Your task to perform on an android device: toggle show notifications on the lock screen Image 0: 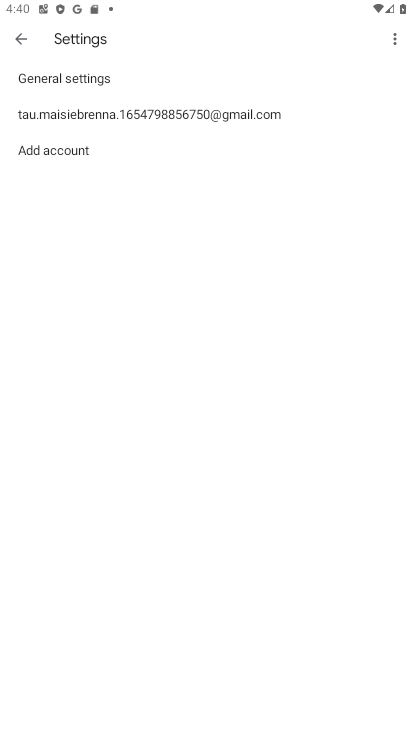
Step 0: press home button
Your task to perform on an android device: toggle show notifications on the lock screen Image 1: 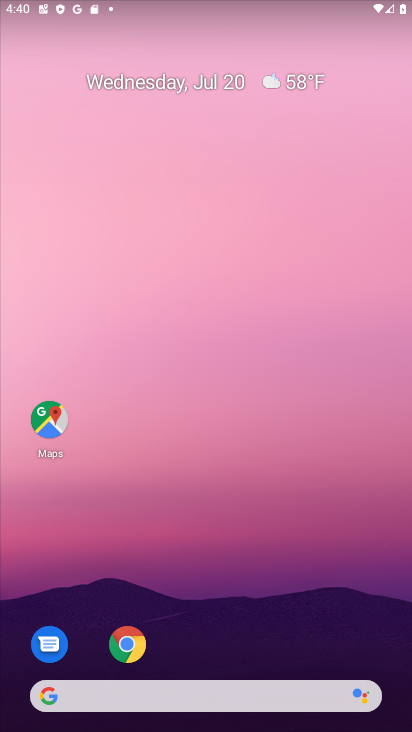
Step 1: drag from (209, 663) to (198, 319)
Your task to perform on an android device: toggle show notifications on the lock screen Image 2: 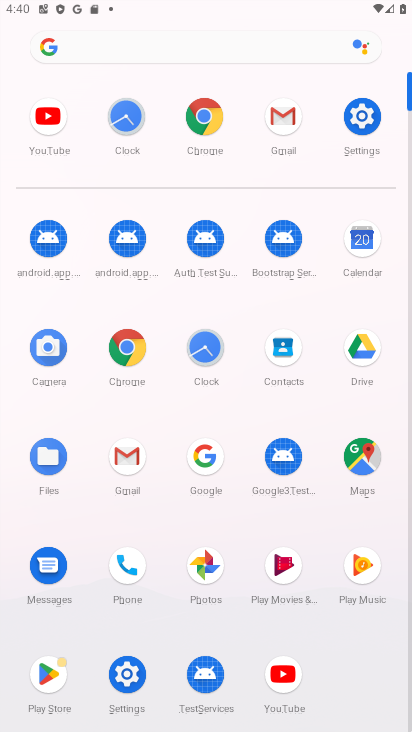
Step 2: click (361, 122)
Your task to perform on an android device: toggle show notifications on the lock screen Image 3: 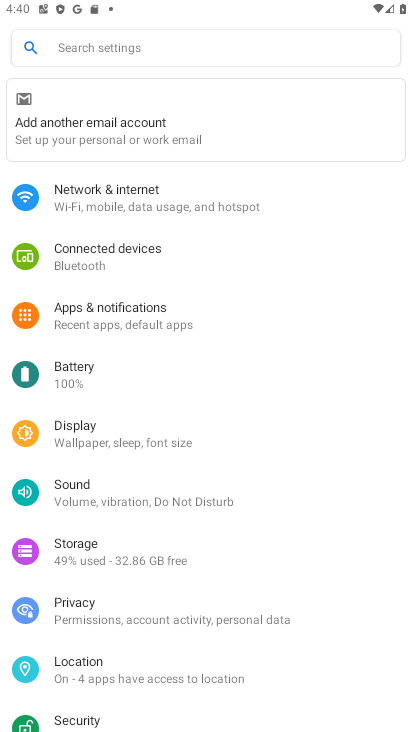
Step 3: click (118, 322)
Your task to perform on an android device: toggle show notifications on the lock screen Image 4: 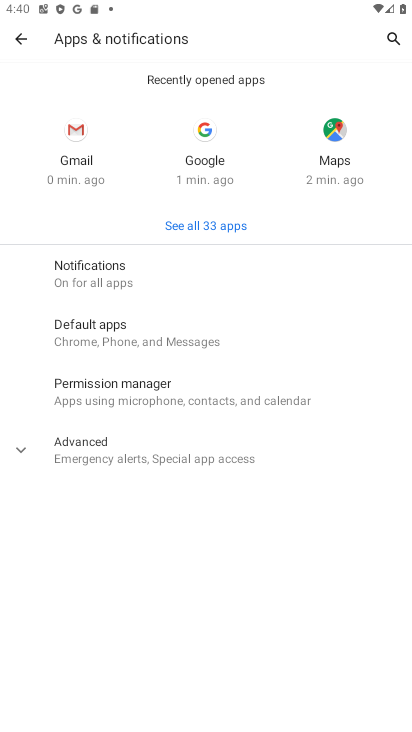
Step 4: click (107, 282)
Your task to perform on an android device: toggle show notifications on the lock screen Image 5: 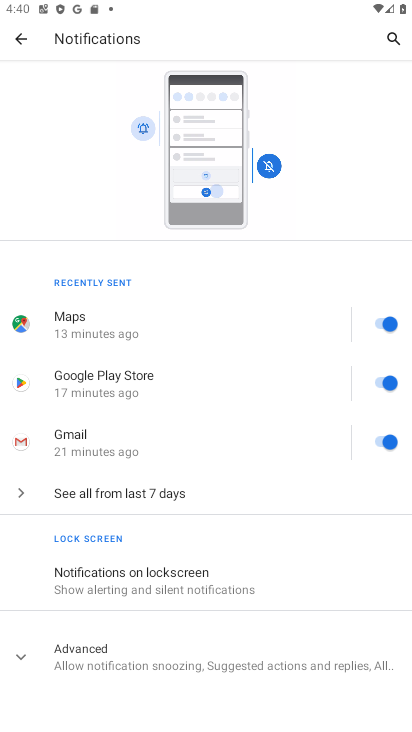
Step 5: click (118, 577)
Your task to perform on an android device: toggle show notifications on the lock screen Image 6: 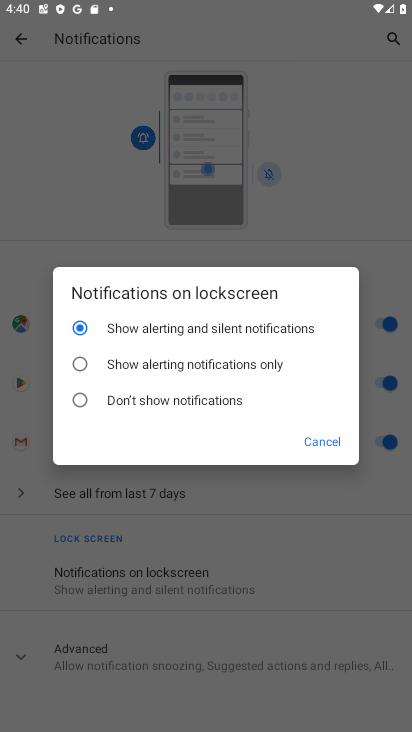
Step 6: click (83, 400)
Your task to perform on an android device: toggle show notifications on the lock screen Image 7: 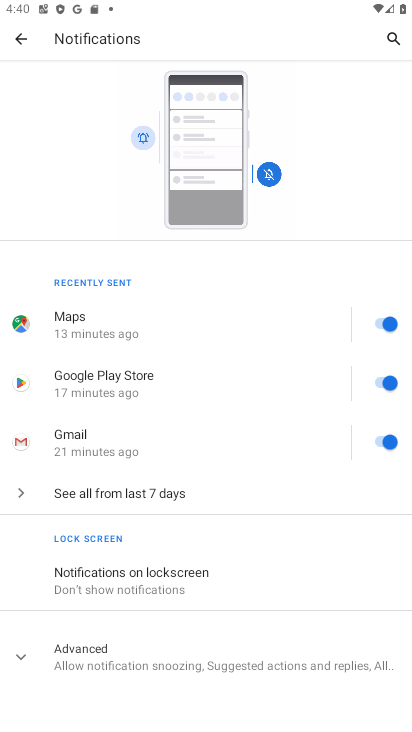
Step 7: task complete